Your task to perform on an android device: install app "eBay: The shopping marketplace" Image 0: 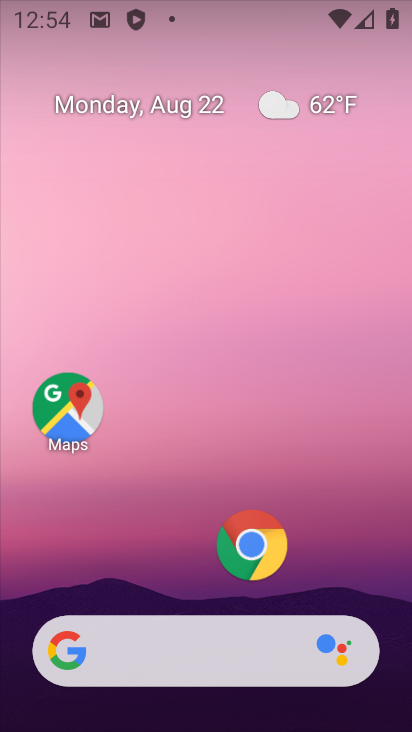
Step 0: drag from (186, 569) to (238, 8)
Your task to perform on an android device: install app "eBay: The shopping marketplace" Image 1: 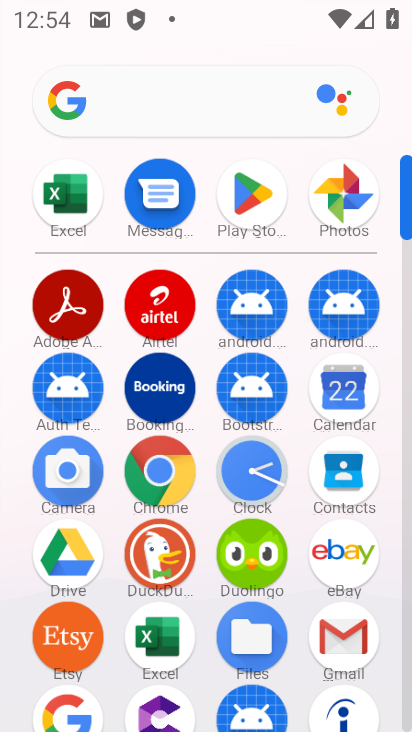
Step 1: click (258, 190)
Your task to perform on an android device: install app "eBay: The shopping marketplace" Image 2: 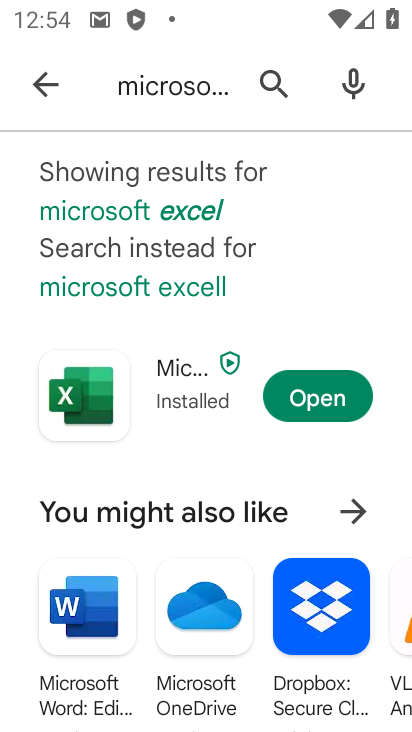
Step 2: click (273, 93)
Your task to perform on an android device: install app "eBay: The shopping marketplace" Image 3: 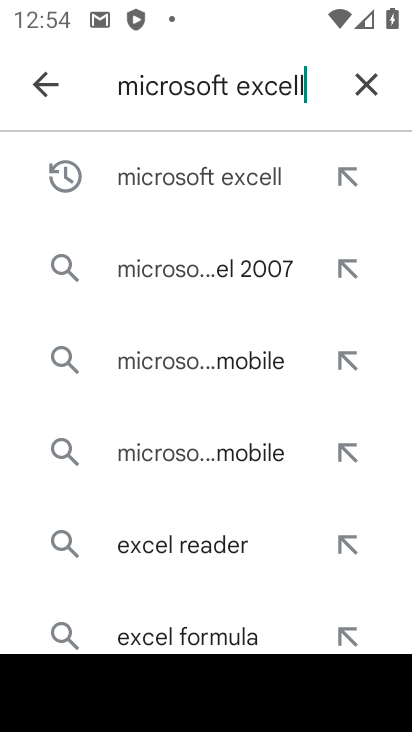
Step 3: click (372, 83)
Your task to perform on an android device: install app "eBay: The shopping marketplace" Image 4: 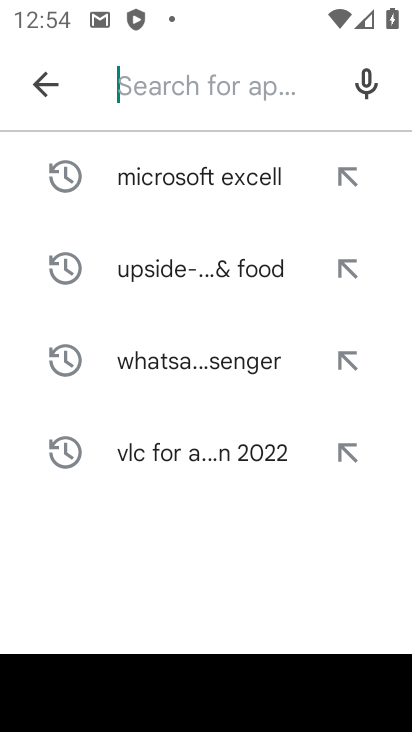
Step 4: click (169, 83)
Your task to perform on an android device: install app "eBay: The shopping marketplace" Image 5: 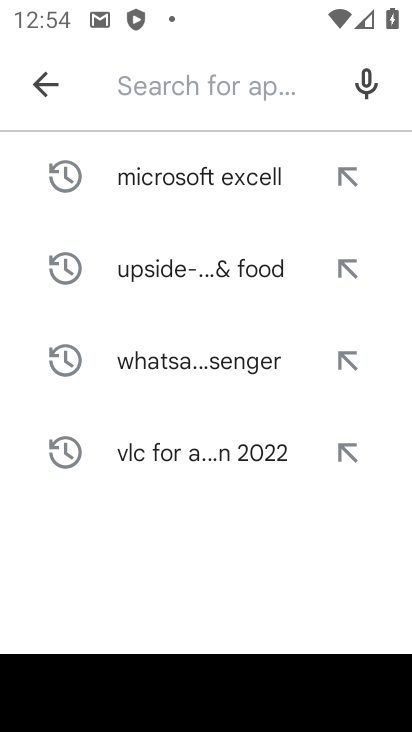
Step 5: click (116, 90)
Your task to perform on an android device: install app "eBay: The shopping marketplace" Image 6: 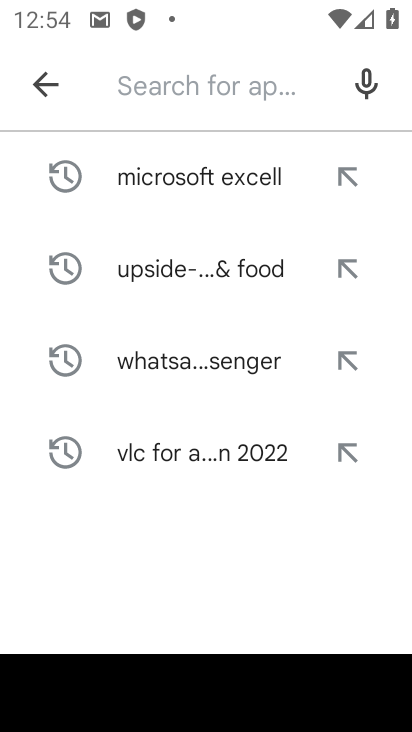
Step 6: type "eBay"
Your task to perform on an android device: install app "eBay: The shopping marketplace" Image 7: 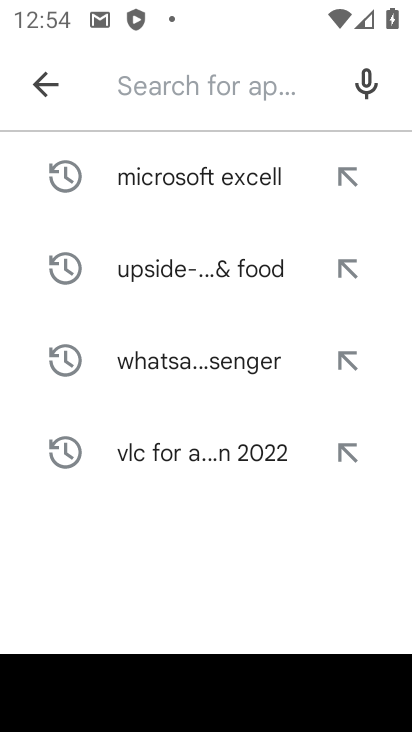
Step 7: click (172, 570)
Your task to perform on an android device: install app "eBay: The shopping marketplace" Image 8: 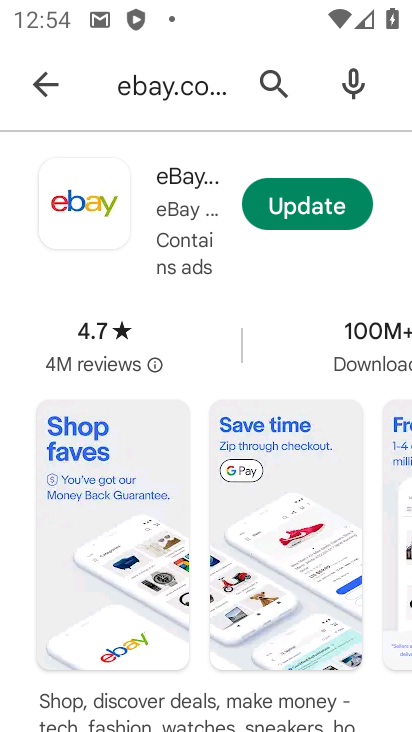
Step 8: click (185, 201)
Your task to perform on an android device: install app "eBay: The shopping marketplace" Image 9: 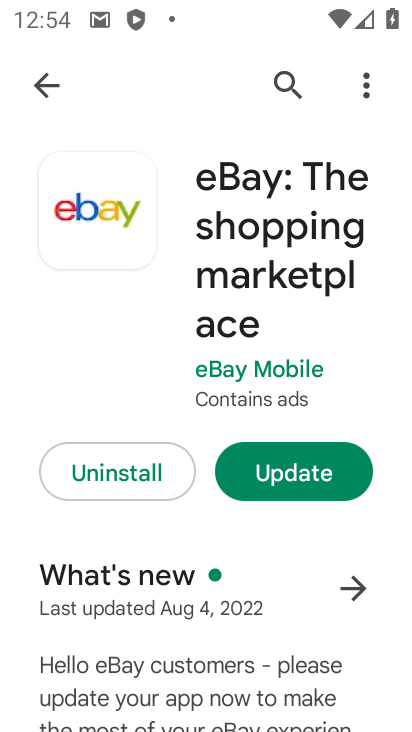
Step 9: task complete